Your task to perform on an android device: turn off airplane mode Image 0: 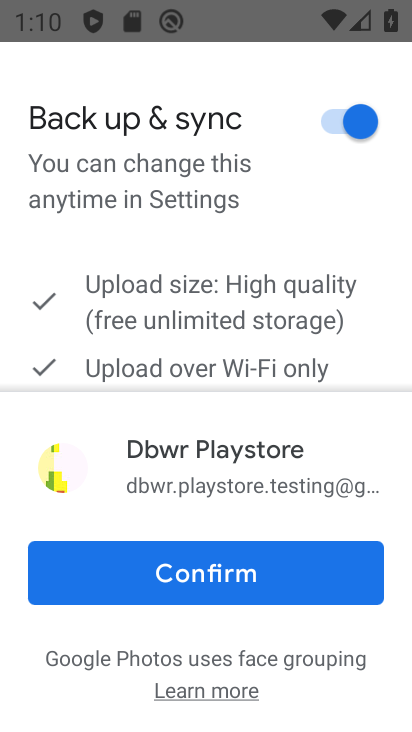
Step 0: press home button
Your task to perform on an android device: turn off airplane mode Image 1: 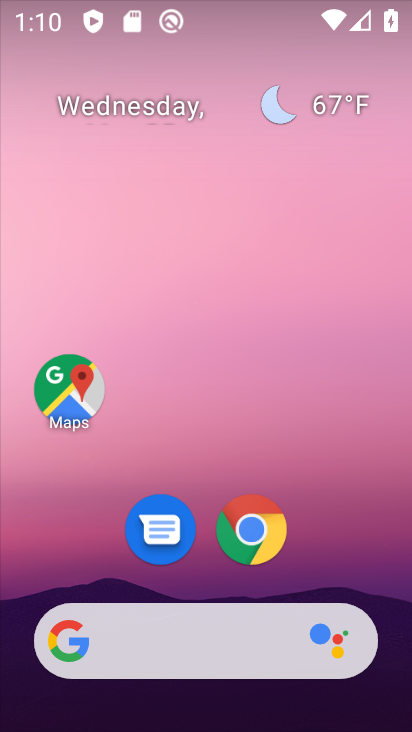
Step 1: drag from (327, 540) to (252, 120)
Your task to perform on an android device: turn off airplane mode Image 2: 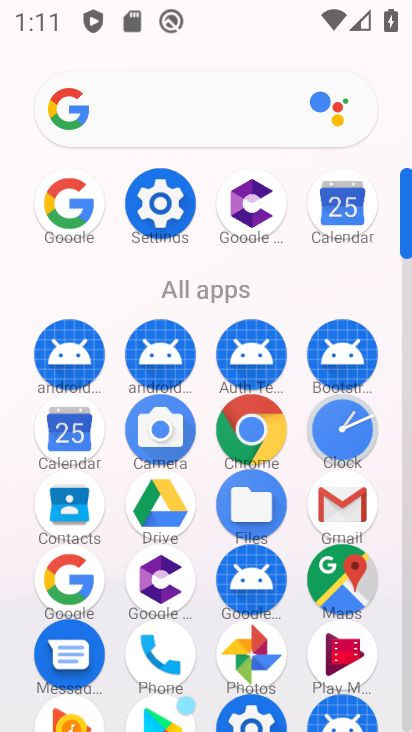
Step 2: click (162, 203)
Your task to perform on an android device: turn off airplane mode Image 3: 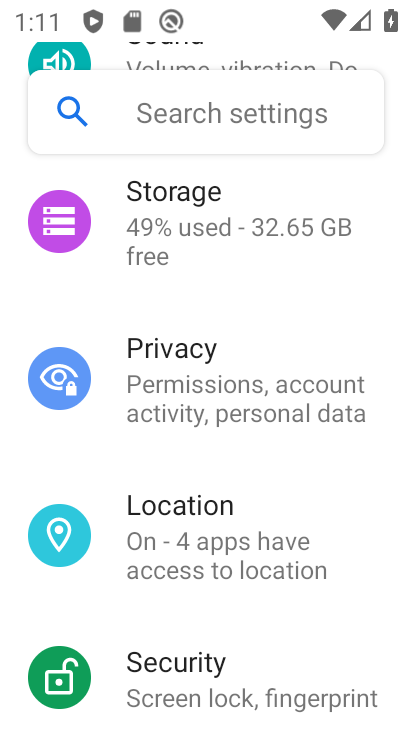
Step 3: drag from (206, 260) to (195, 401)
Your task to perform on an android device: turn off airplane mode Image 4: 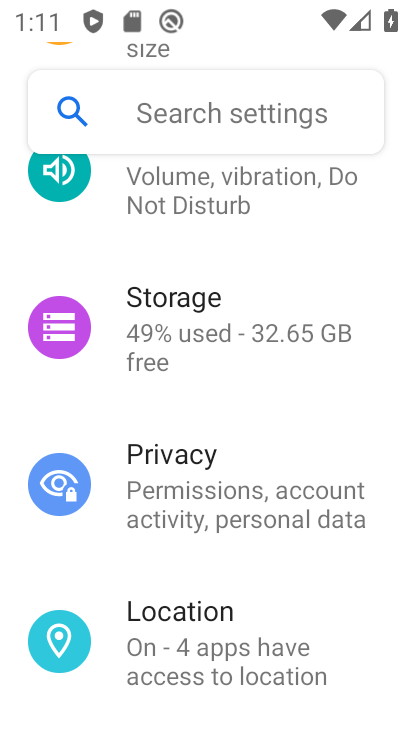
Step 4: drag from (225, 296) to (241, 415)
Your task to perform on an android device: turn off airplane mode Image 5: 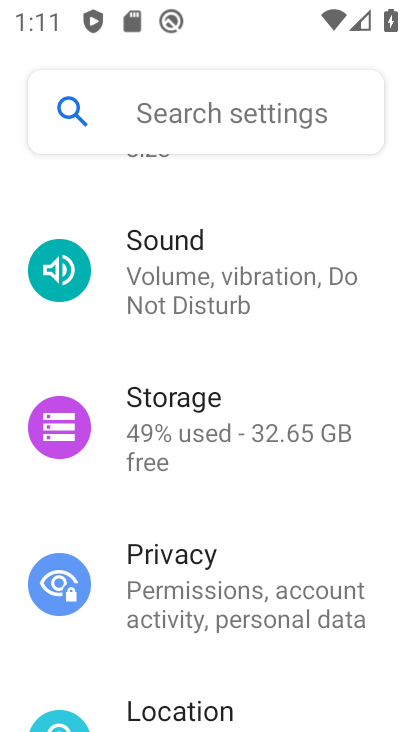
Step 5: drag from (242, 207) to (268, 376)
Your task to perform on an android device: turn off airplane mode Image 6: 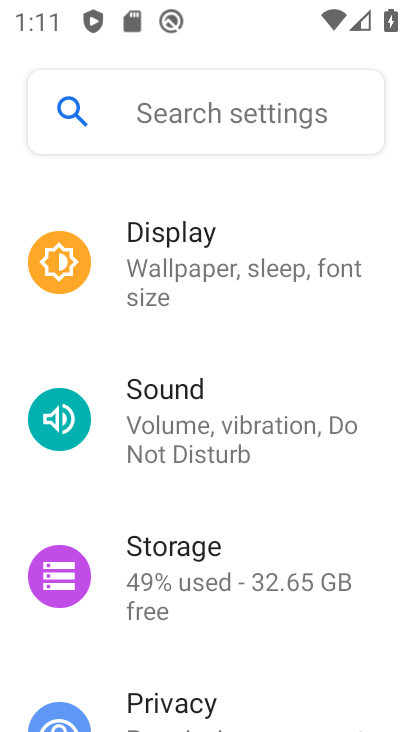
Step 6: drag from (237, 196) to (228, 420)
Your task to perform on an android device: turn off airplane mode Image 7: 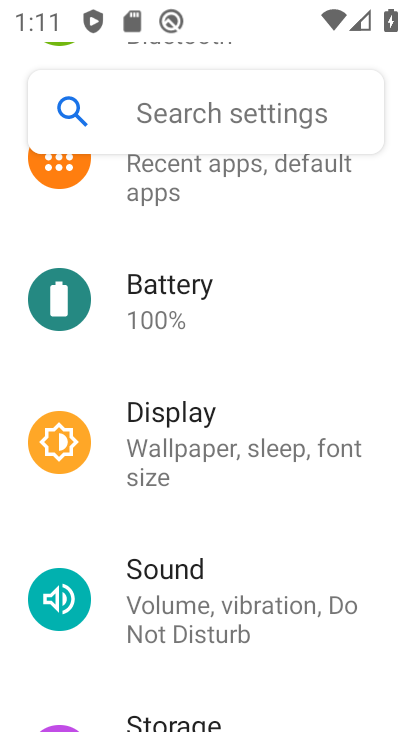
Step 7: drag from (233, 236) to (224, 426)
Your task to perform on an android device: turn off airplane mode Image 8: 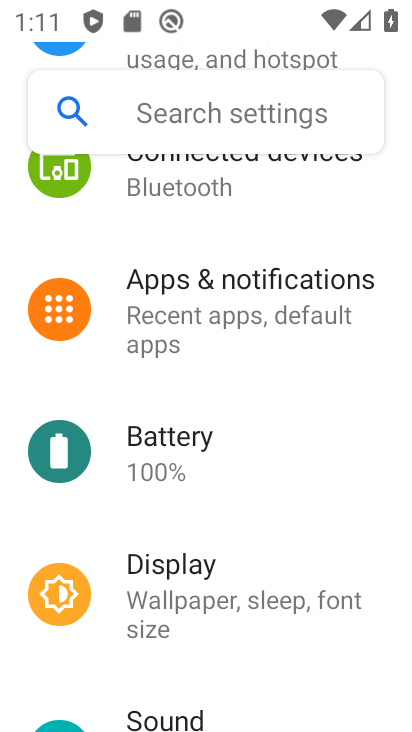
Step 8: drag from (228, 203) to (239, 415)
Your task to perform on an android device: turn off airplane mode Image 9: 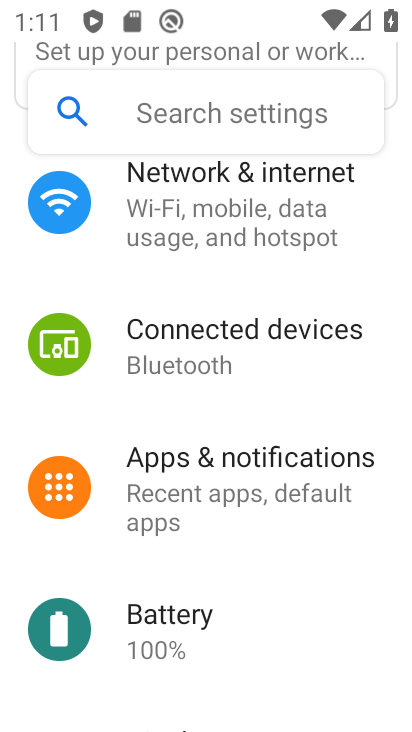
Step 9: drag from (208, 269) to (219, 375)
Your task to perform on an android device: turn off airplane mode Image 10: 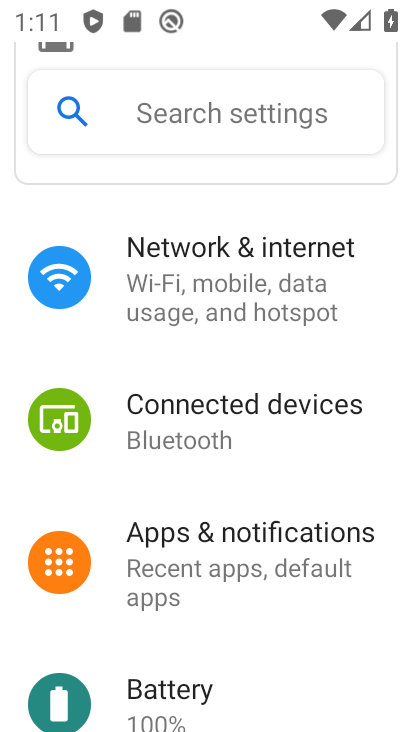
Step 10: click (220, 250)
Your task to perform on an android device: turn off airplane mode Image 11: 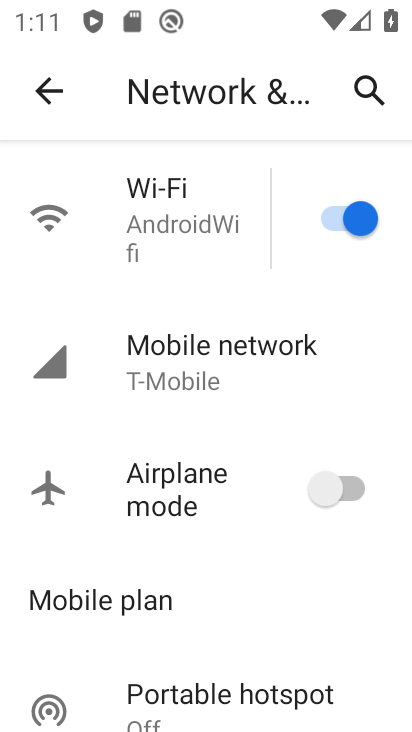
Step 11: task complete